Your task to perform on an android device: open a new tab in the chrome app Image 0: 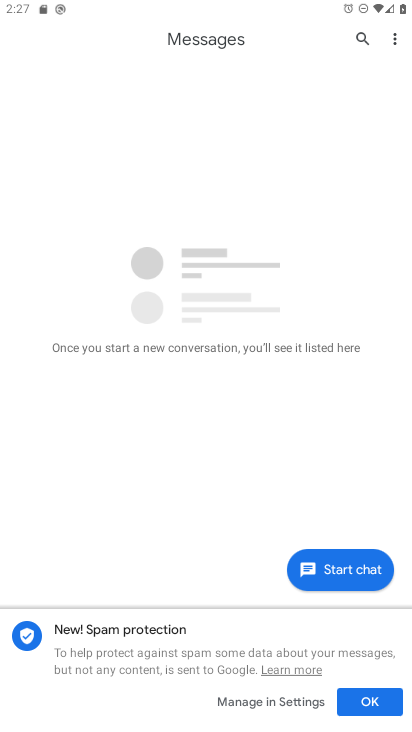
Step 0: press home button
Your task to perform on an android device: open a new tab in the chrome app Image 1: 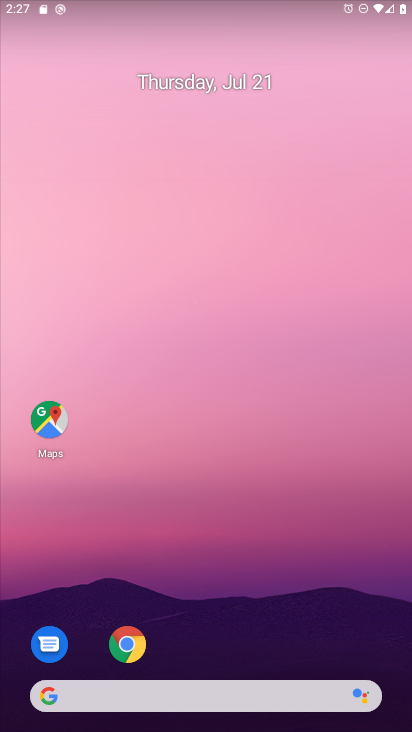
Step 1: click (124, 647)
Your task to perform on an android device: open a new tab in the chrome app Image 2: 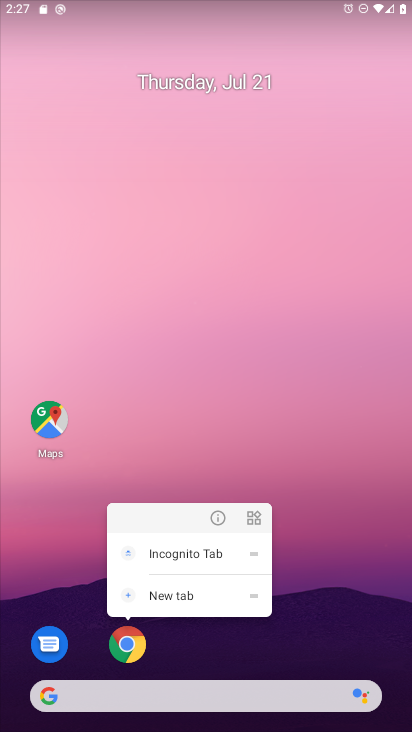
Step 2: click (124, 647)
Your task to perform on an android device: open a new tab in the chrome app Image 3: 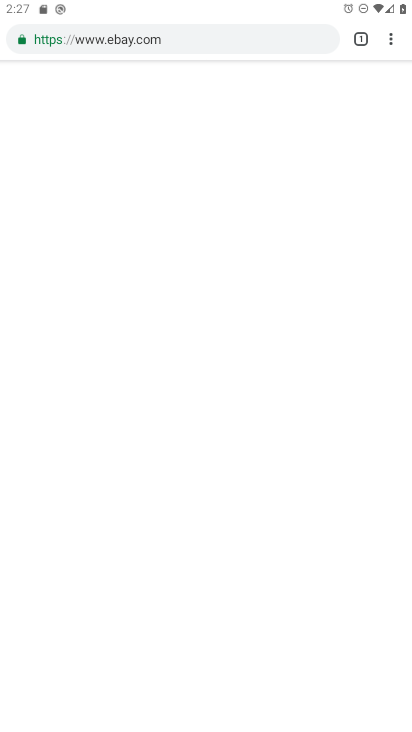
Step 3: click (383, 38)
Your task to perform on an android device: open a new tab in the chrome app Image 4: 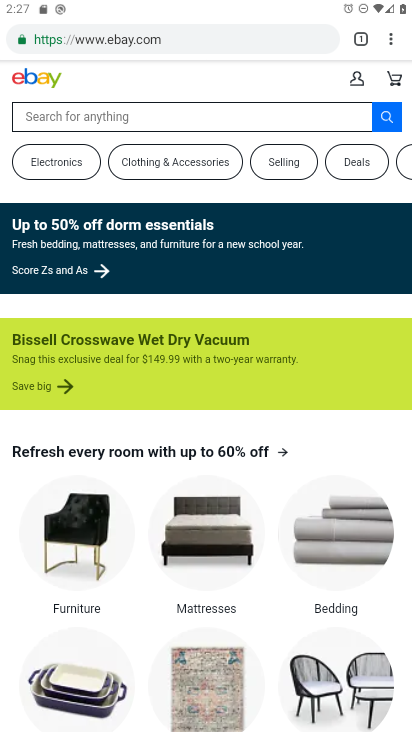
Step 4: click (386, 39)
Your task to perform on an android device: open a new tab in the chrome app Image 5: 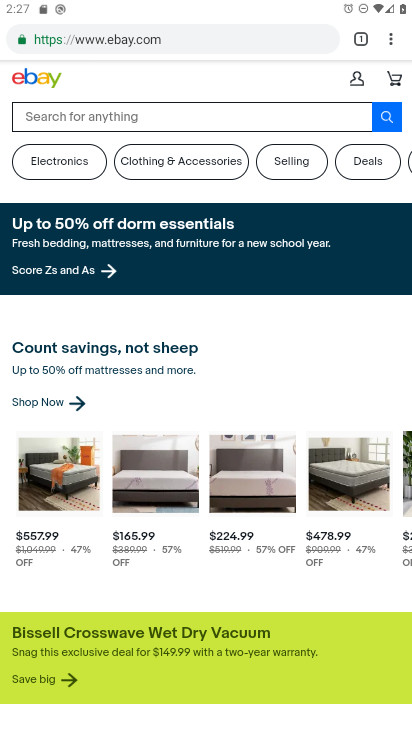
Step 5: click (386, 39)
Your task to perform on an android device: open a new tab in the chrome app Image 6: 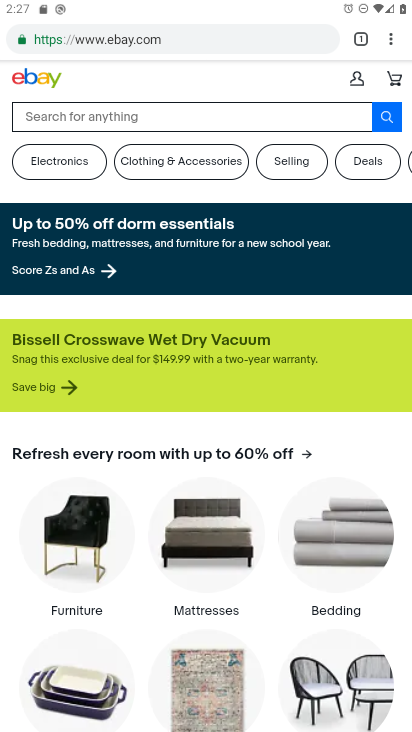
Step 6: click (384, 39)
Your task to perform on an android device: open a new tab in the chrome app Image 7: 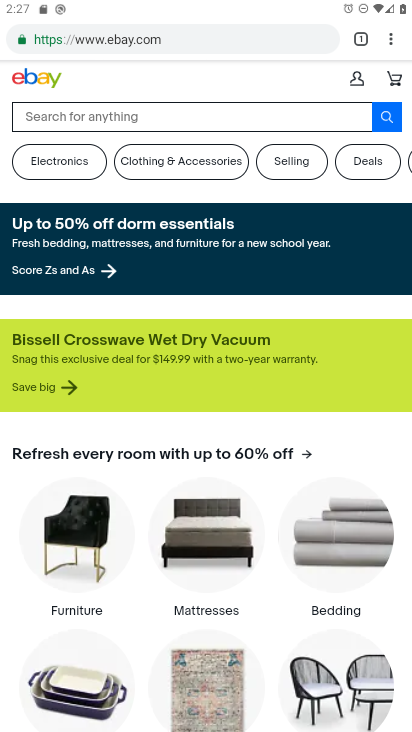
Step 7: click (381, 34)
Your task to perform on an android device: open a new tab in the chrome app Image 8: 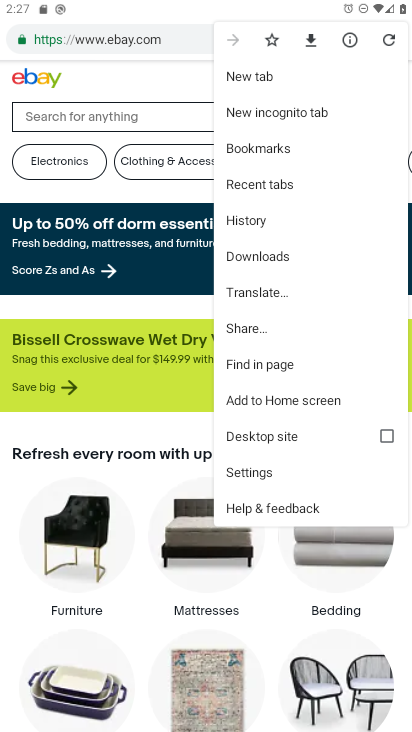
Step 8: click (277, 82)
Your task to perform on an android device: open a new tab in the chrome app Image 9: 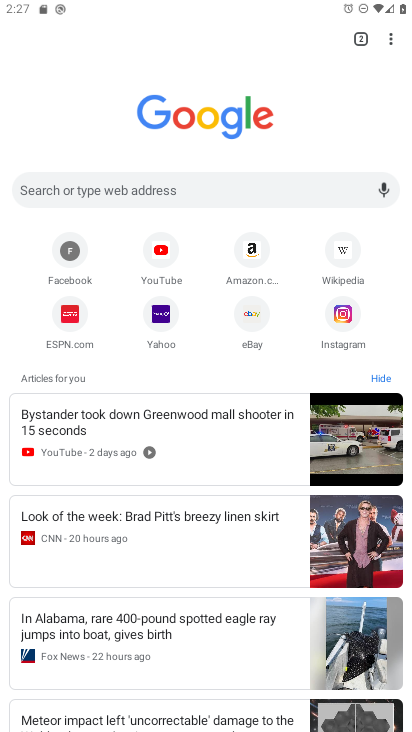
Step 9: task complete